Your task to perform on an android device: Find coffee shops on Maps Image 0: 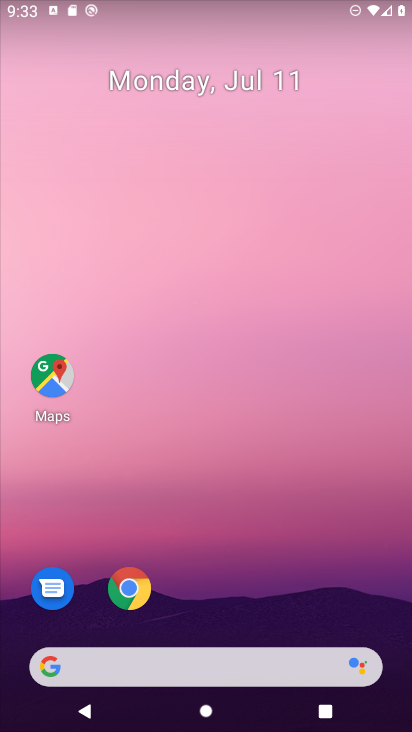
Step 0: drag from (390, 662) to (155, 43)
Your task to perform on an android device: Find coffee shops on Maps Image 1: 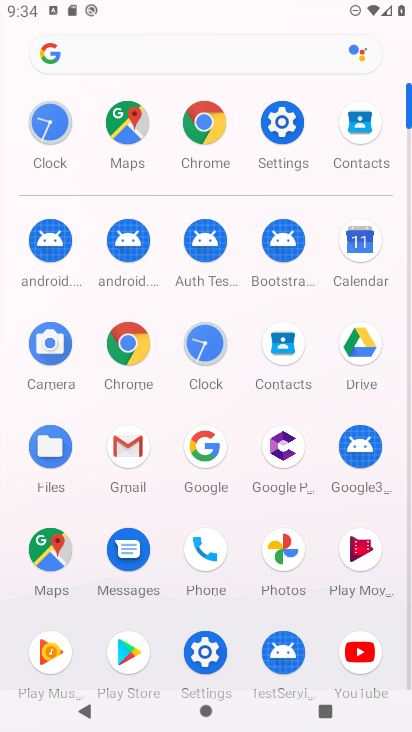
Step 1: click (52, 546)
Your task to perform on an android device: Find coffee shops on Maps Image 2: 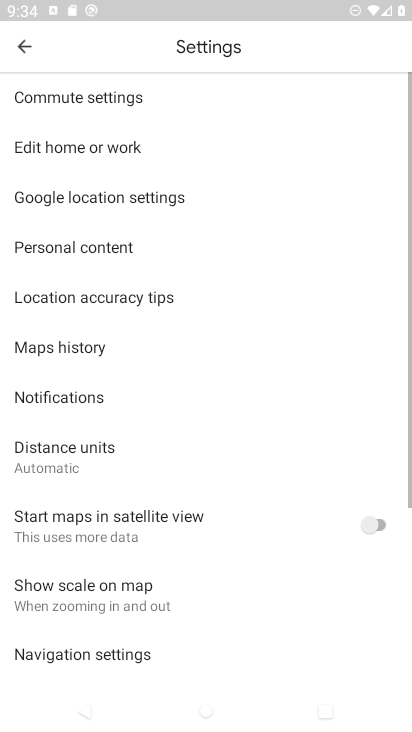
Step 2: press back button
Your task to perform on an android device: Find coffee shops on Maps Image 3: 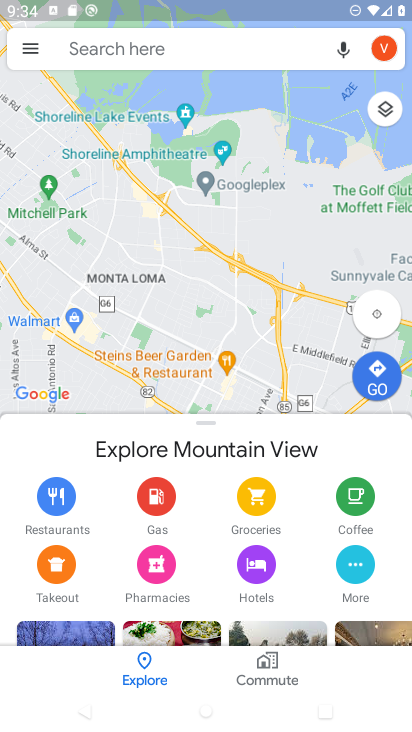
Step 3: click (179, 44)
Your task to perform on an android device: Find coffee shops on Maps Image 4: 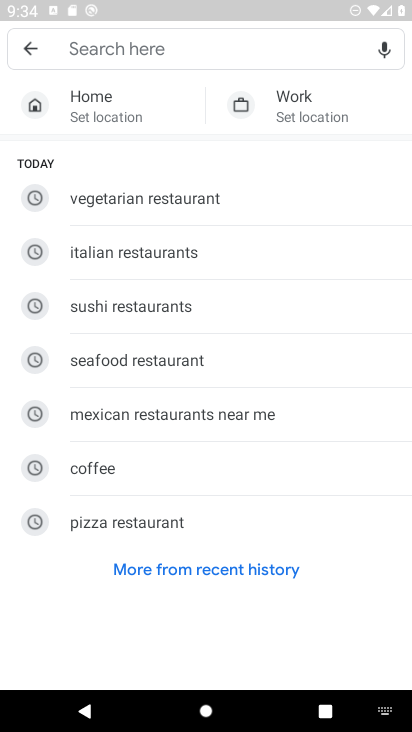
Step 4: click (114, 472)
Your task to perform on an android device: Find coffee shops on Maps Image 5: 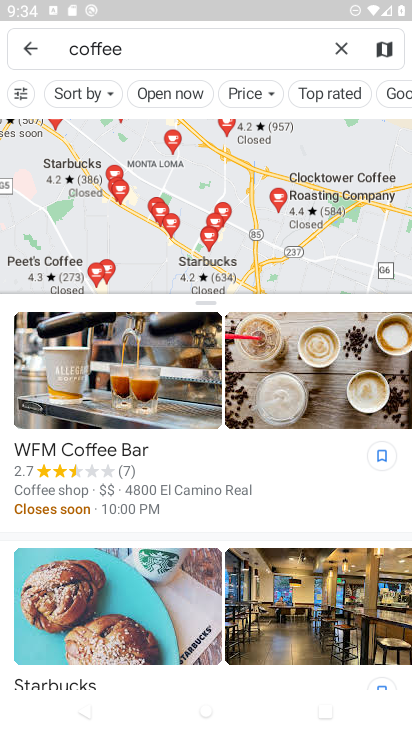
Step 5: task complete